Your task to perform on an android device: Open network settings Image 0: 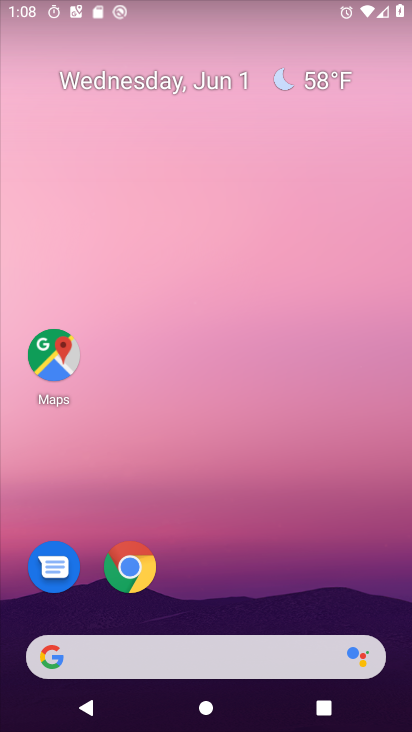
Step 0: drag from (212, 590) to (237, 80)
Your task to perform on an android device: Open network settings Image 1: 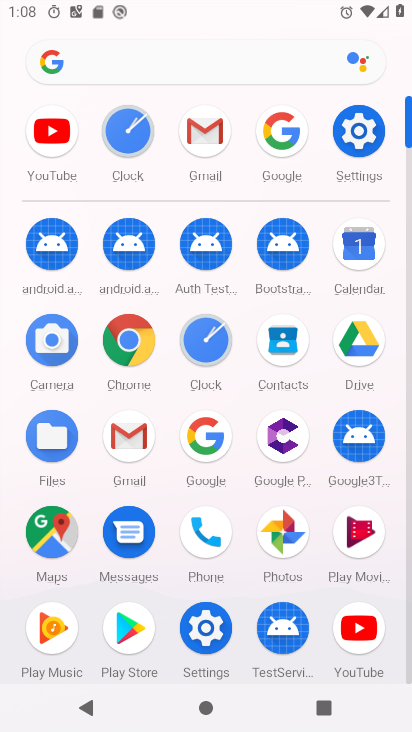
Step 1: click (356, 138)
Your task to perform on an android device: Open network settings Image 2: 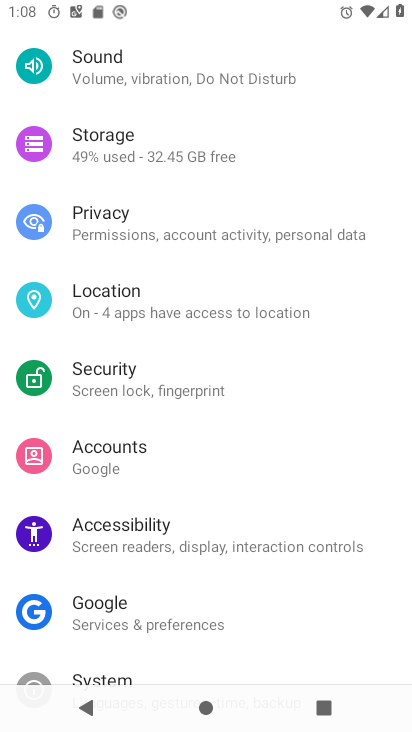
Step 2: drag from (158, 131) to (219, 590)
Your task to perform on an android device: Open network settings Image 3: 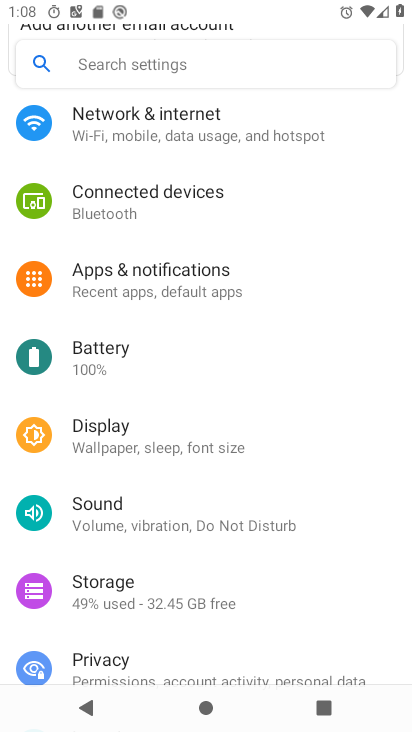
Step 3: click (144, 129)
Your task to perform on an android device: Open network settings Image 4: 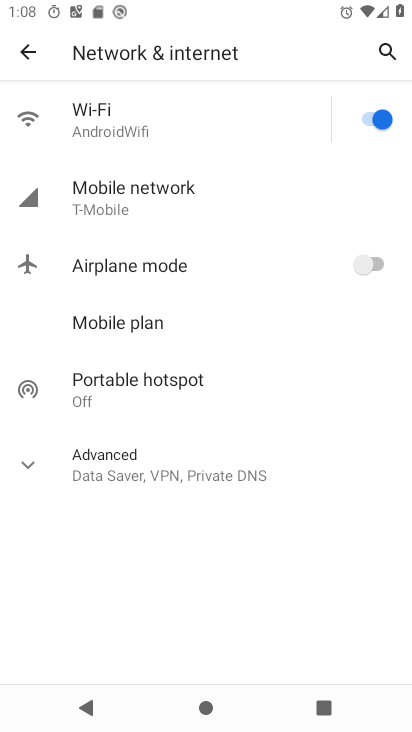
Step 4: click (157, 206)
Your task to perform on an android device: Open network settings Image 5: 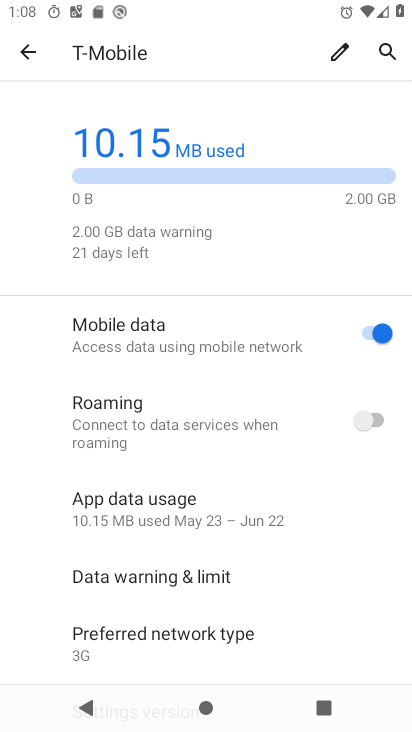
Step 5: task complete